Your task to perform on an android device: What's the weather going to be this weekend? Image 0: 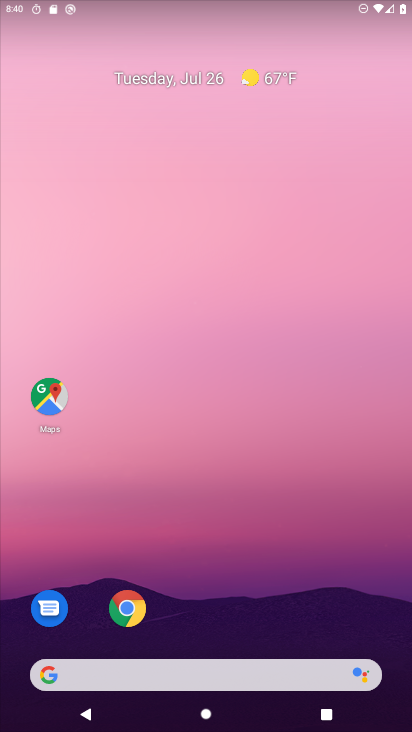
Step 0: drag from (194, 621) to (293, 170)
Your task to perform on an android device: What's the weather going to be this weekend? Image 1: 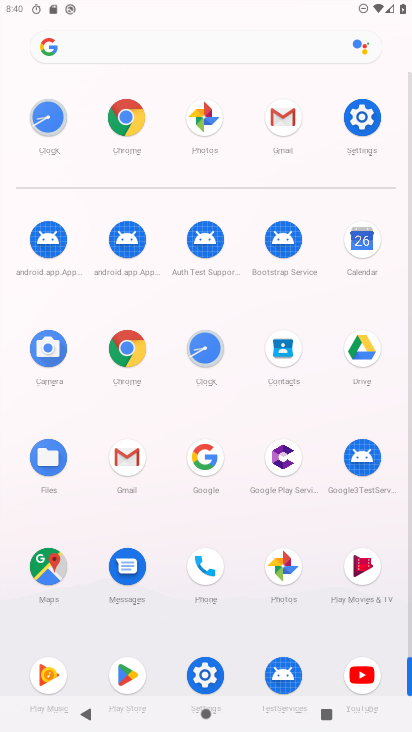
Step 1: click (228, 50)
Your task to perform on an android device: What's the weather going to be this weekend? Image 2: 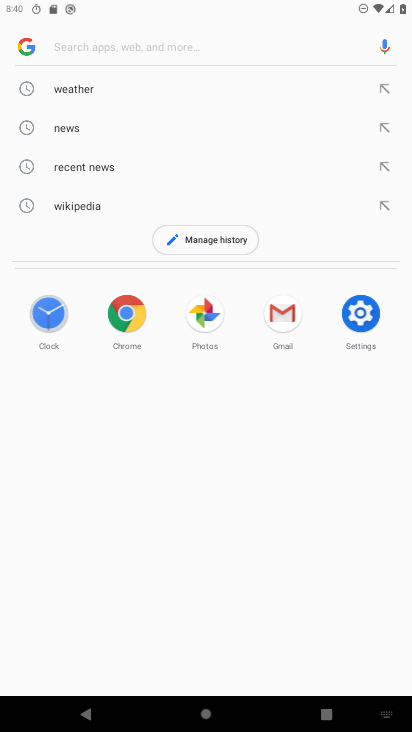
Step 2: click (87, 87)
Your task to perform on an android device: What's the weather going to be this weekend? Image 3: 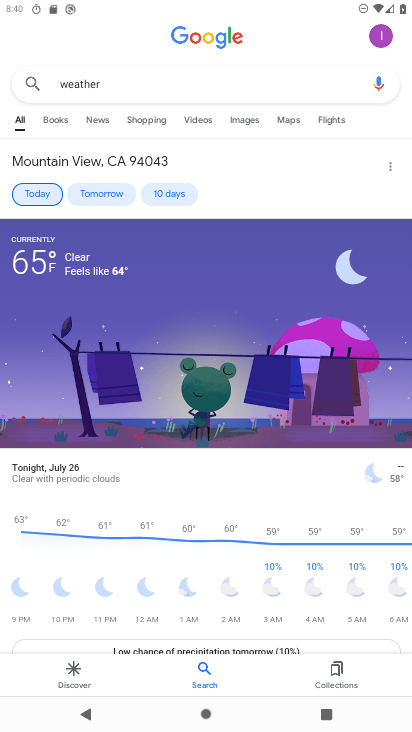
Step 3: click (173, 198)
Your task to perform on an android device: What's the weather going to be this weekend? Image 4: 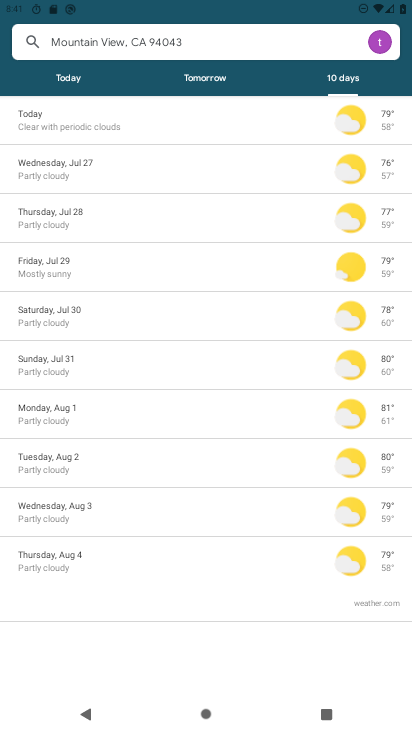
Step 4: task complete